Your task to perform on an android device: turn vacation reply on in the gmail app Image 0: 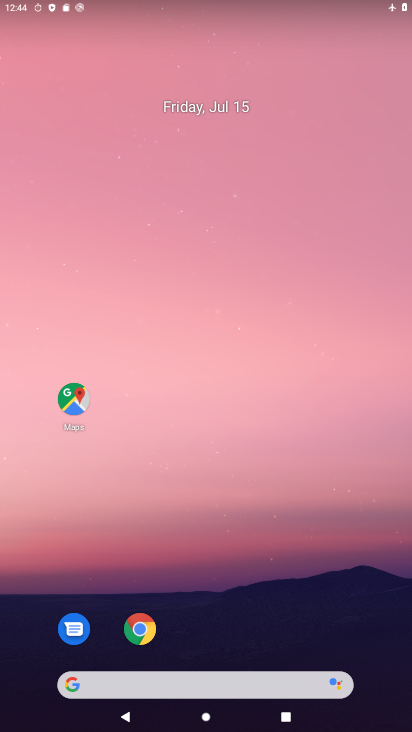
Step 0: drag from (201, 634) to (205, 106)
Your task to perform on an android device: turn vacation reply on in the gmail app Image 1: 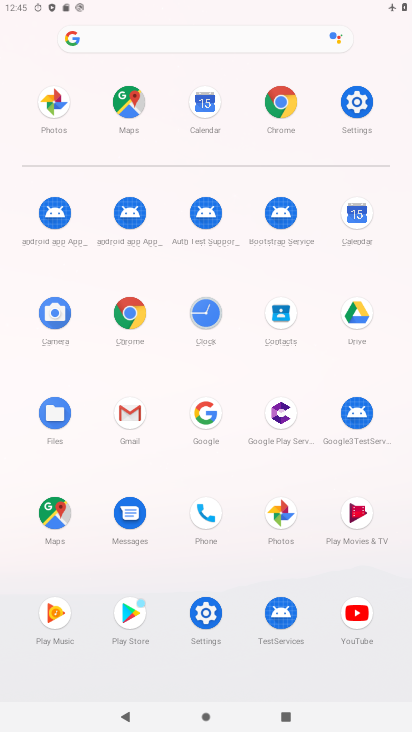
Step 1: click (127, 417)
Your task to perform on an android device: turn vacation reply on in the gmail app Image 2: 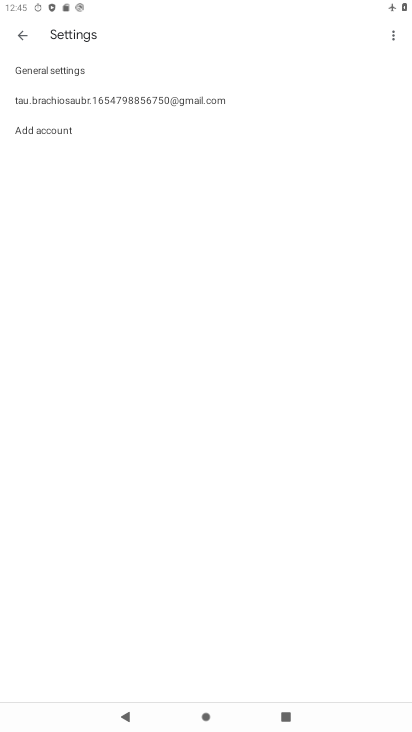
Step 2: click (142, 107)
Your task to perform on an android device: turn vacation reply on in the gmail app Image 3: 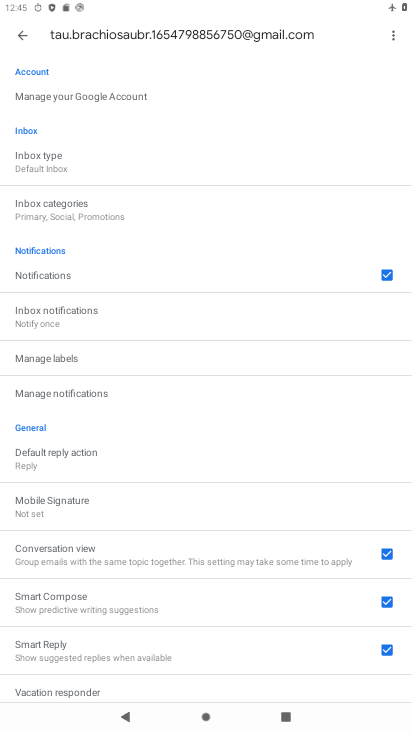
Step 3: drag from (121, 560) to (156, 307)
Your task to perform on an android device: turn vacation reply on in the gmail app Image 4: 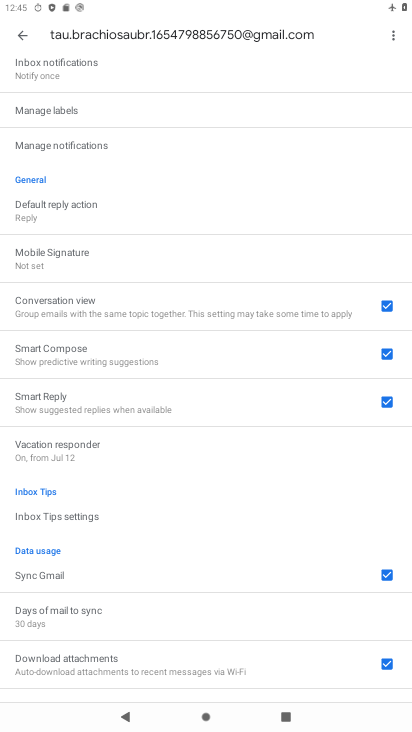
Step 4: click (66, 453)
Your task to perform on an android device: turn vacation reply on in the gmail app Image 5: 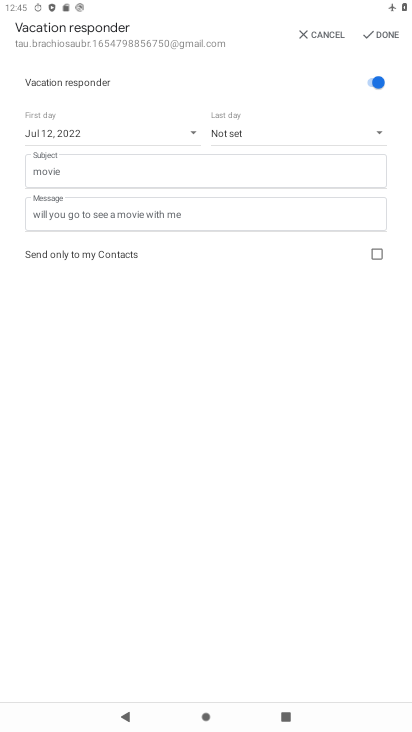
Step 5: task complete